Your task to perform on an android device: turn on showing notifications on the lock screen Image 0: 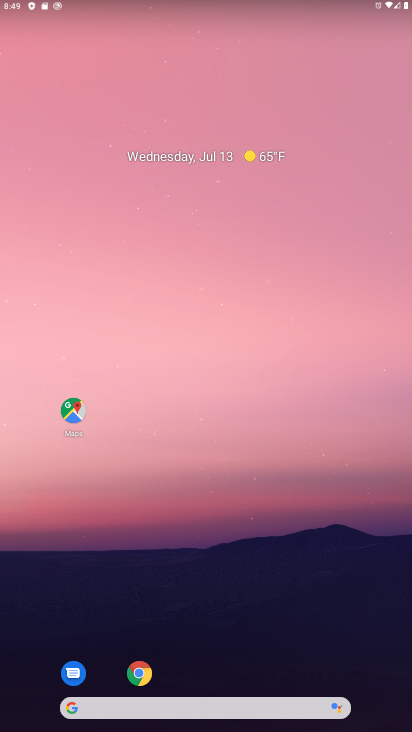
Step 0: drag from (200, 700) to (293, 294)
Your task to perform on an android device: turn on showing notifications on the lock screen Image 1: 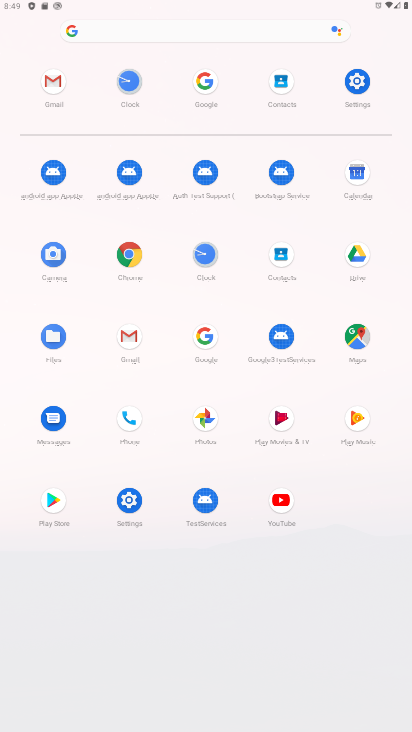
Step 1: click (357, 82)
Your task to perform on an android device: turn on showing notifications on the lock screen Image 2: 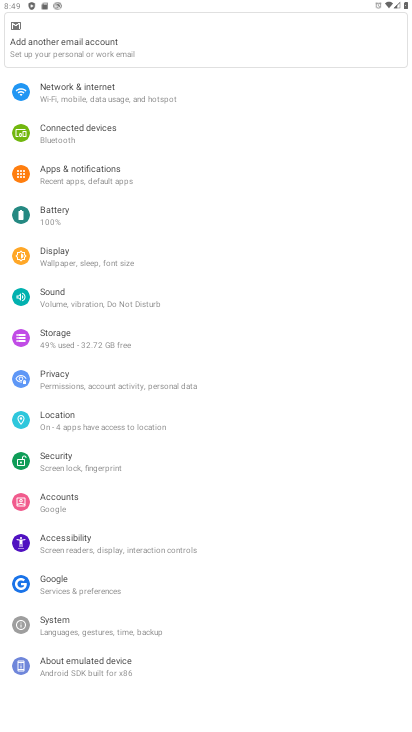
Step 2: click (102, 173)
Your task to perform on an android device: turn on showing notifications on the lock screen Image 3: 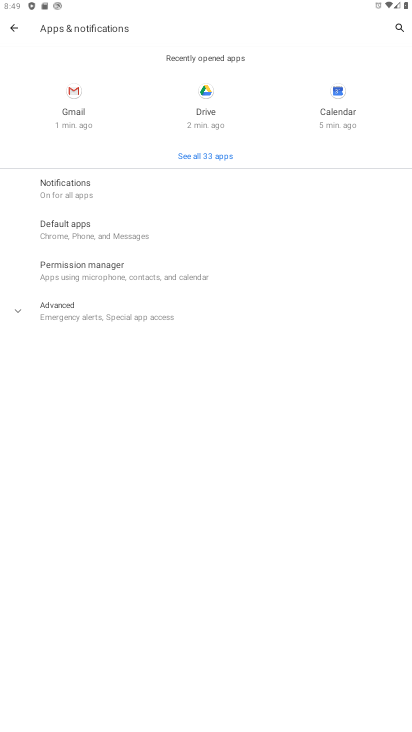
Step 3: click (78, 195)
Your task to perform on an android device: turn on showing notifications on the lock screen Image 4: 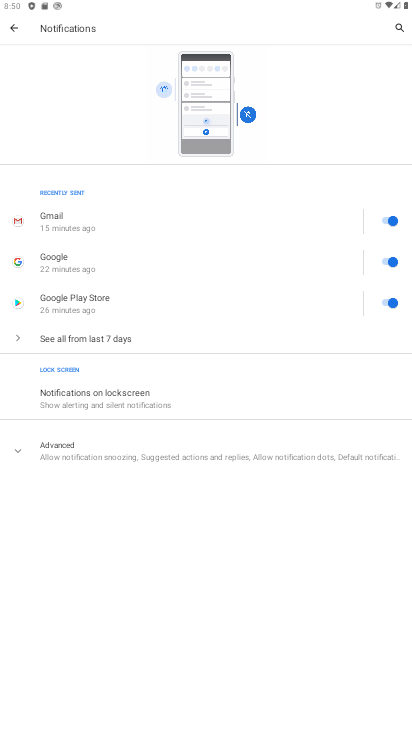
Step 4: click (86, 401)
Your task to perform on an android device: turn on showing notifications on the lock screen Image 5: 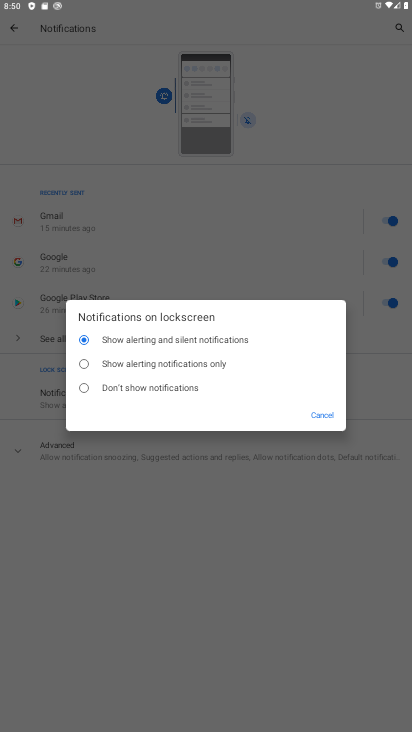
Step 5: click (84, 342)
Your task to perform on an android device: turn on showing notifications on the lock screen Image 6: 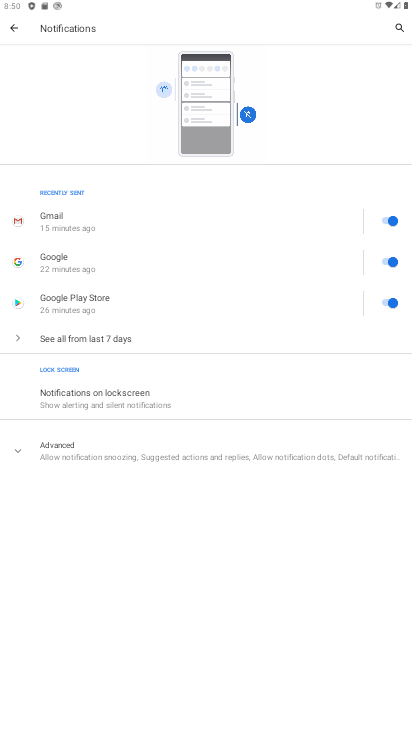
Step 6: task complete